Your task to perform on an android device: What's on my calendar tomorrow? Image 0: 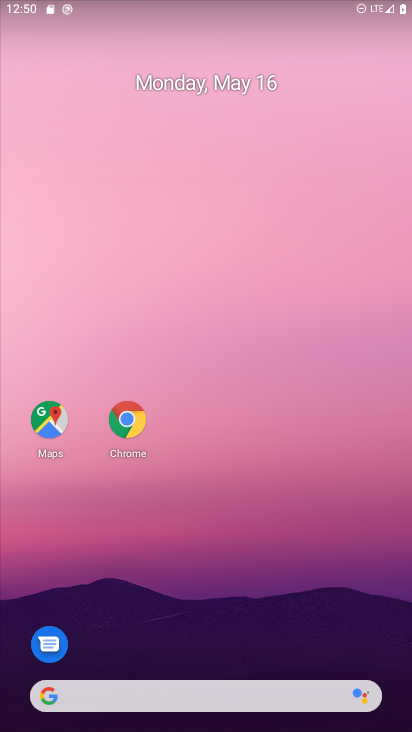
Step 0: click (171, 225)
Your task to perform on an android device: What's on my calendar tomorrow? Image 1: 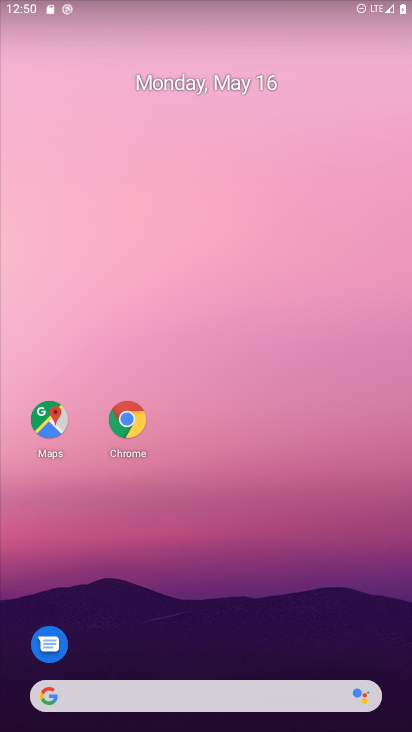
Step 1: drag from (197, 533) to (284, 31)
Your task to perform on an android device: What's on my calendar tomorrow? Image 2: 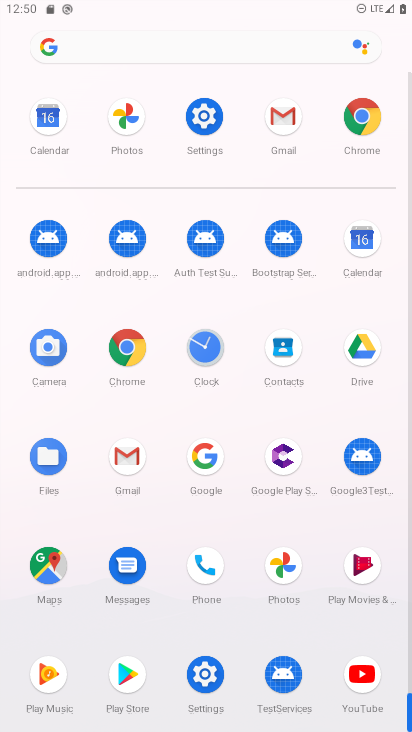
Step 2: click (361, 119)
Your task to perform on an android device: What's on my calendar tomorrow? Image 3: 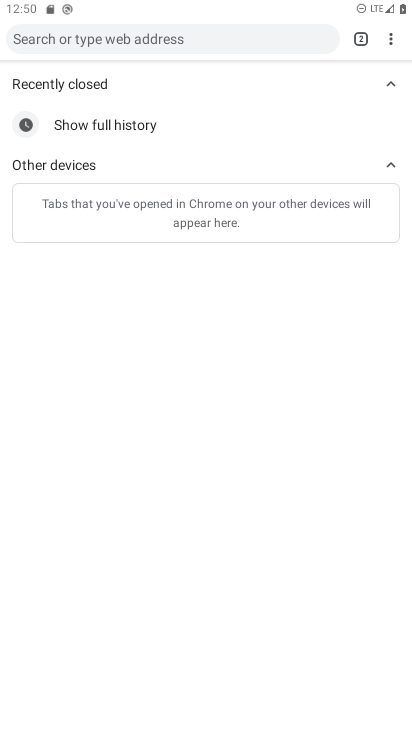
Step 3: click (392, 40)
Your task to perform on an android device: What's on my calendar tomorrow? Image 4: 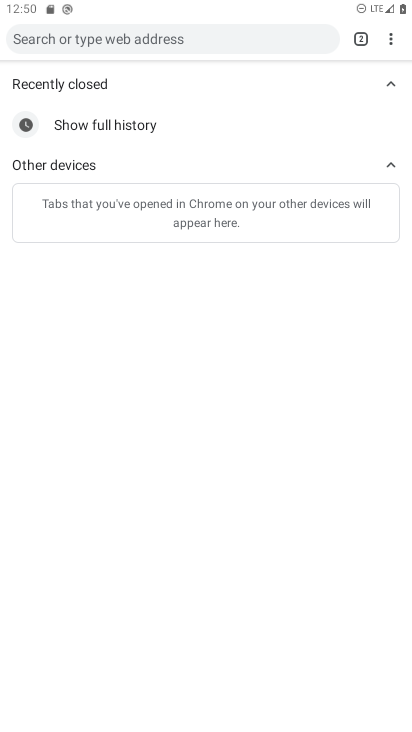
Step 4: click (392, 40)
Your task to perform on an android device: What's on my calendar tomorrow? Image 5: 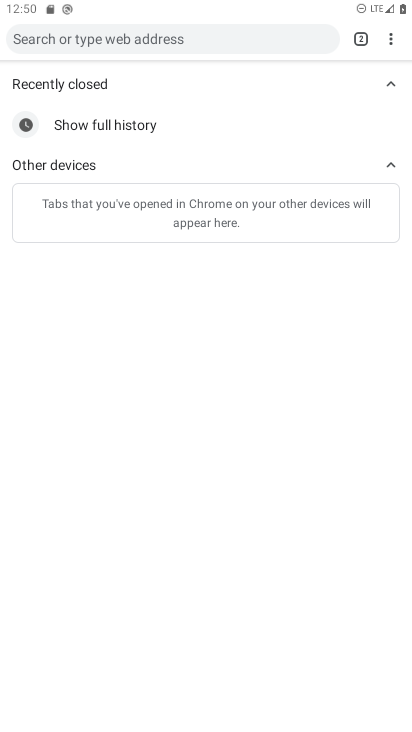
Step 5: click (392, 40)
Your task to perform on an android device: What's on my calendar tomorrow? Image 6: 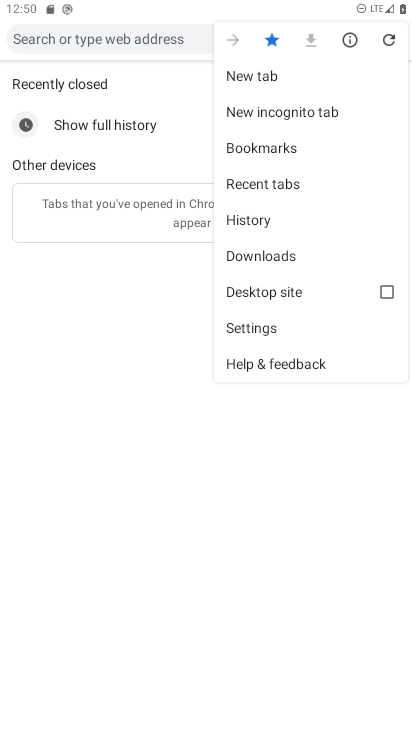
Step 6: press home button
Your task to perform on an android device: What's on my calendar tomorrow? Image 7: 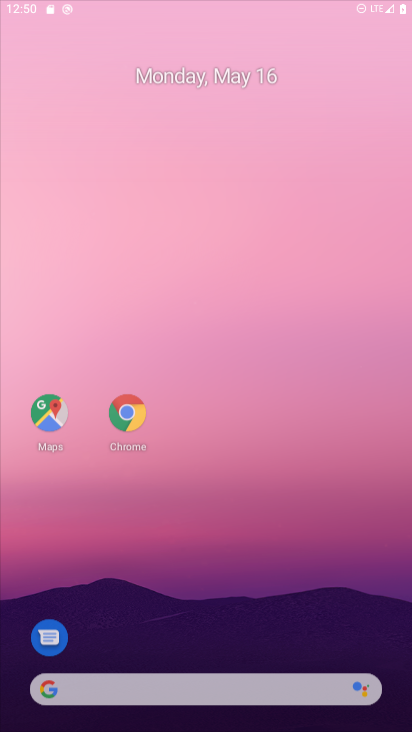
Step 7: drag from (190, 646) to (233, 311)
Your task to perform on an android device: What's on my calendar tomorrow? Image 8: 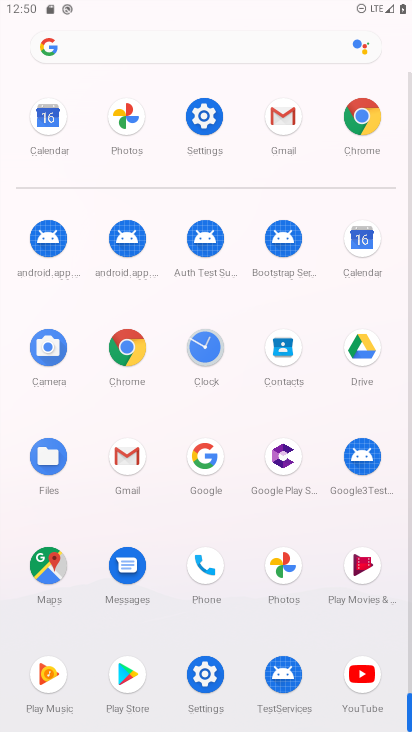
Step 8: click (365, 238)
Your task to perform on an android device: What's on my calendar tomorrow? Image 9: 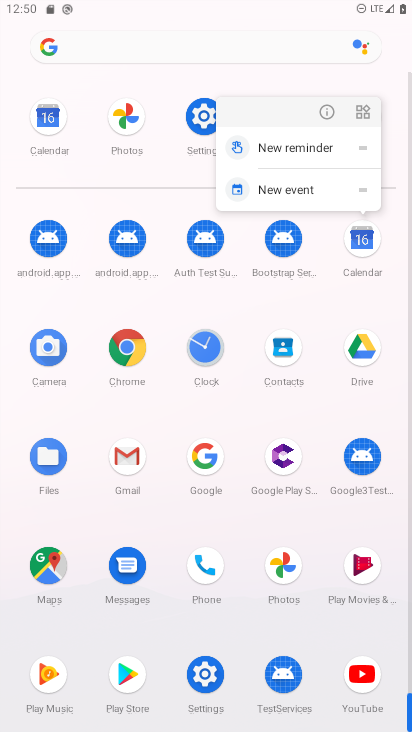
Step 9: click (331, 128)
Your task to perform on an android device: What's on my calendar tomorrow? Image 10: 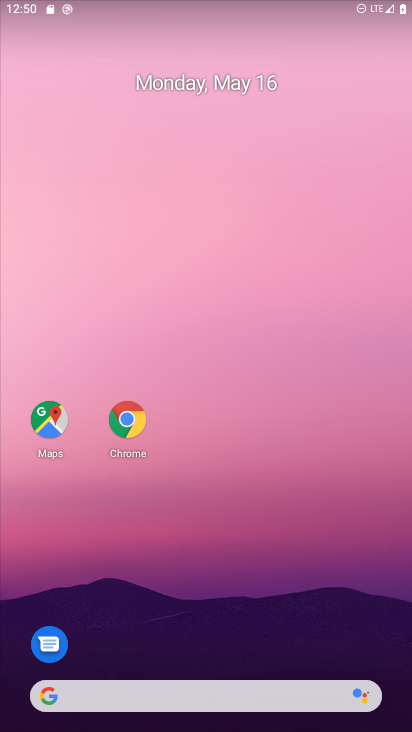
Step 10: drag from (205, 560) to (189, 394)
Your task to perform on an android device: What's on my calendar tomorrow? Image 11: 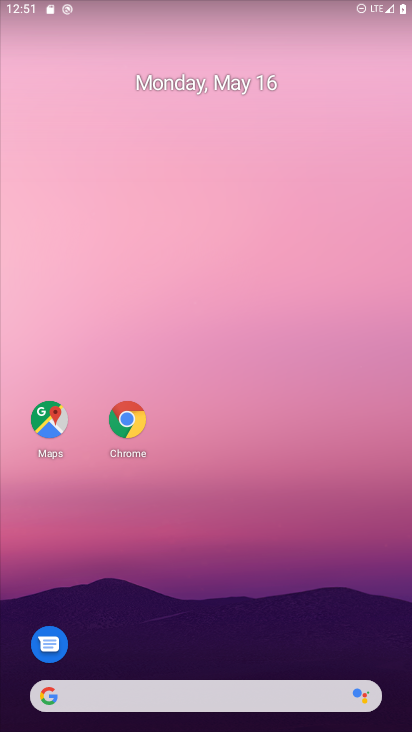
Step 11: drag from (165, 595) to (177, 64)
Your task to perform on an android device: What's on my calendar tomorrow? Image 12: 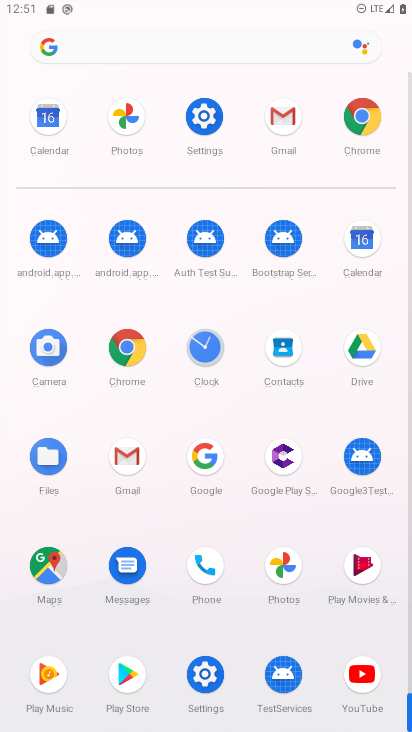
Step 12: click (350, 250)
Your task to perform on an android device: What's on my calendar tomorrow? Image 13: 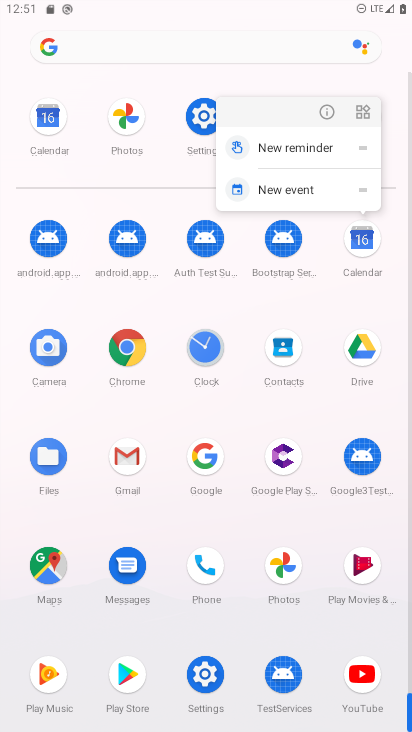
Step 13: click (323, 111)
Your task to perform on an android device: What's on my calendar tomorrow? Image 14: 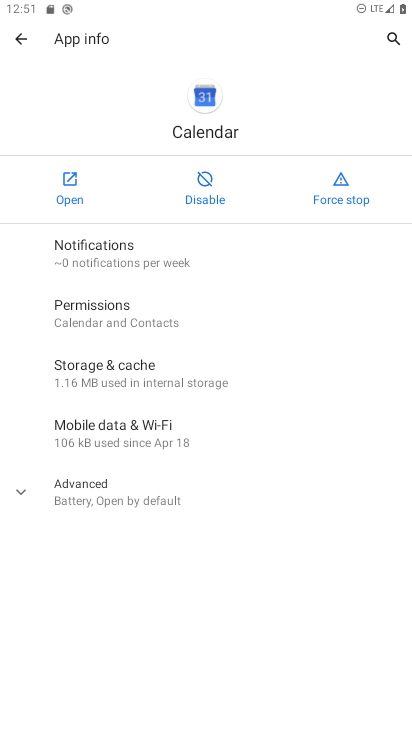
Step 14: click (89, 192)
Your task to perform on an android device: What's on my calendar tomorrow? Image 15: 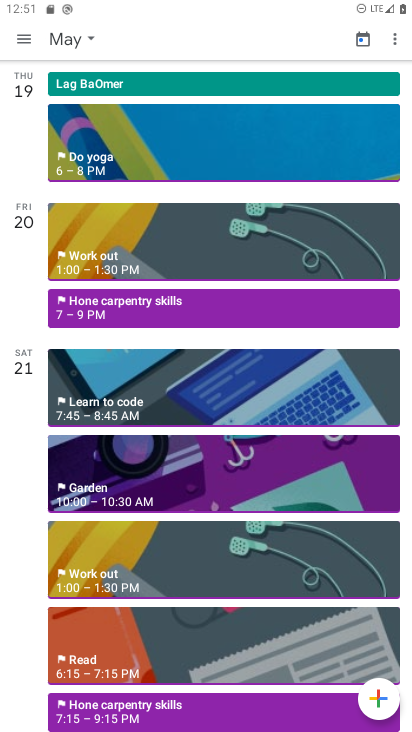
Step 15: drag from (141, 561) to (258, 138)
Your task to perform on an android device: What's on my calendar tomorrow? Image 16: 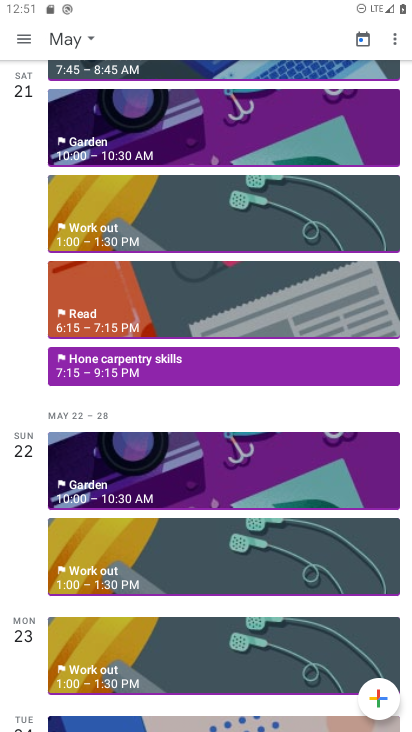
Step 16: drag from (246, 378) to (241, 307)
Your task to perform on an android device: What's on my calendar tomorrow? Image 17: 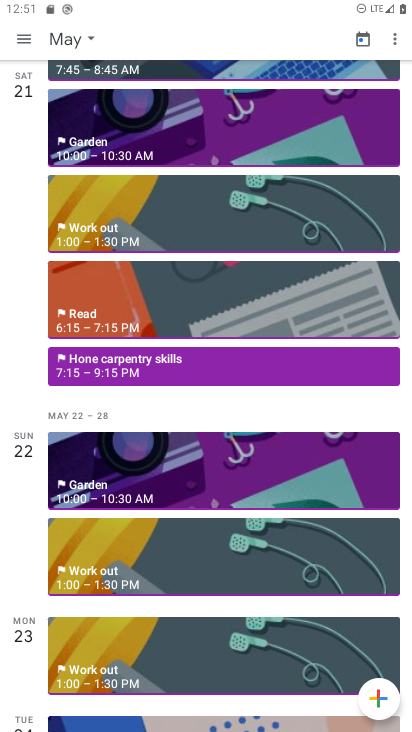
Step 17: click (64, 30)
Your task to perform on an android device: What's on my calendar tomorrow? Image 18: 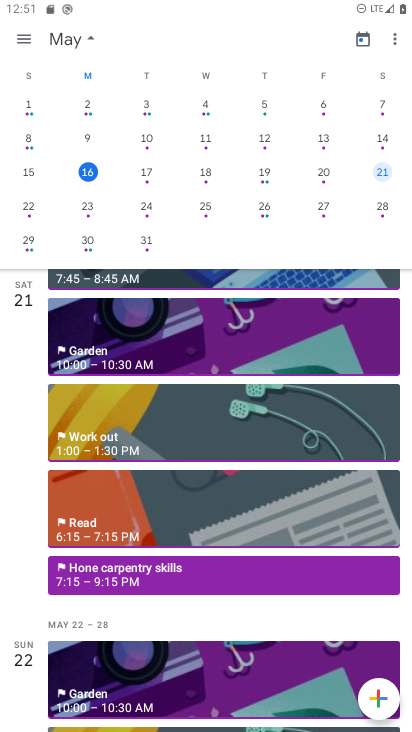
Step 18: click (140, 172)
Your task to perform on an android device: What's on my calendar tomorrow? Image 19: 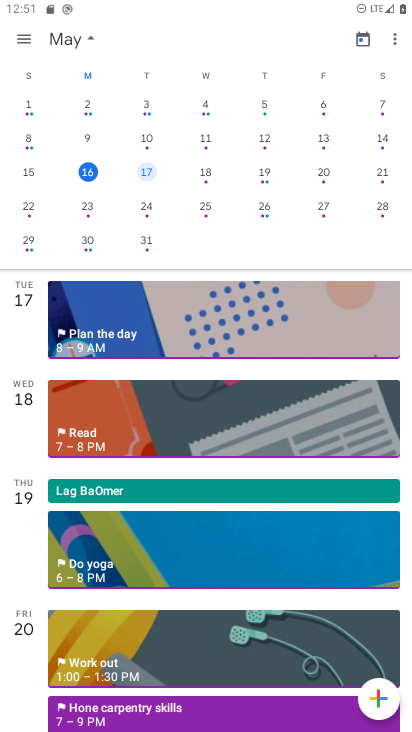
Step 19: task complete